Your task to perform on an android device: Open Google Chrome and click the shortcut for Amazon.com Image 0: 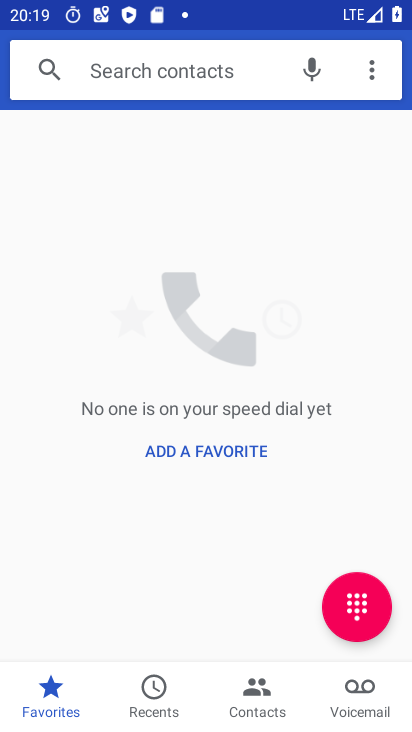
Step 0: press home button
Your task to perform on an android device: Open Google Chrome and click the shortcut for Amazon.com Image 1: 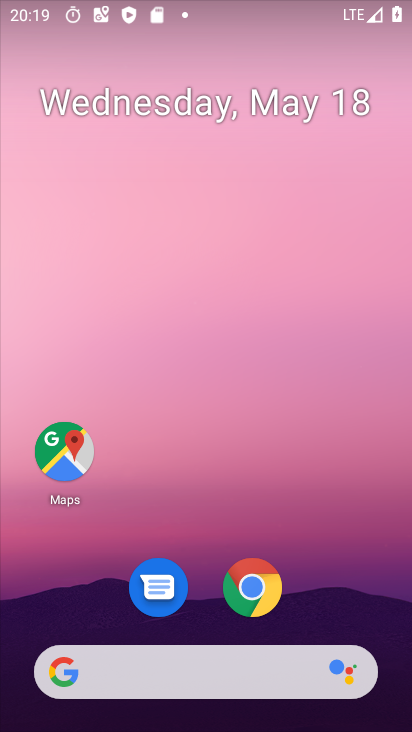
Step 1: click (258, 585)
Your task to perform on an android device: Open Google Chrome and click the shortcut for Amazon.com Image 2: 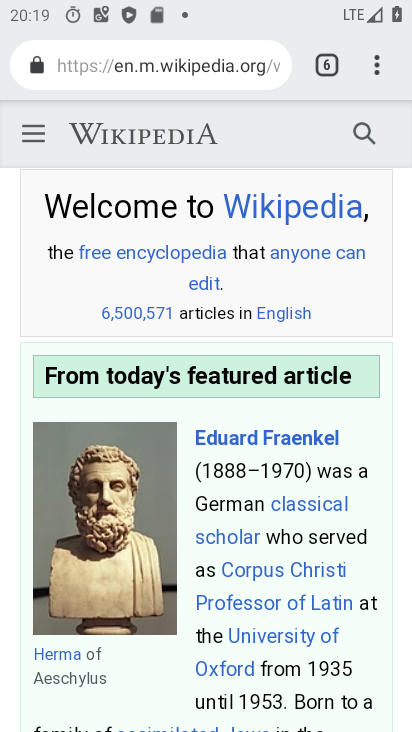
Step 2: click (318, 63)
Your task to perform on an android device: Open Google Chrome and click the shortcut for Amazon.com Image 3: 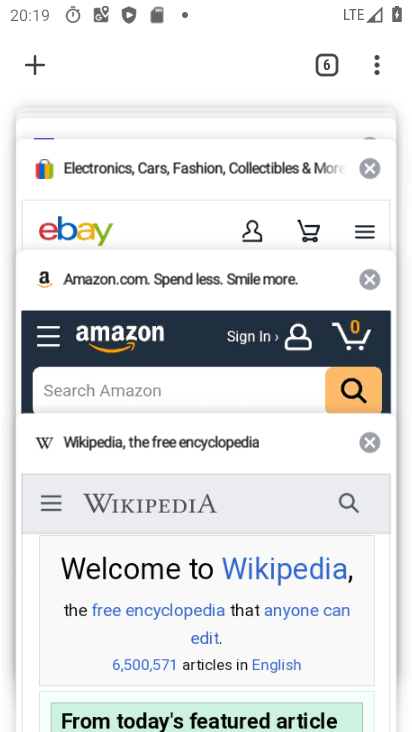
Step 3: click (232, 331)
Your task to perform on an android device: Open Google Chrome and click the shortcut for Amazon.com Image 4: 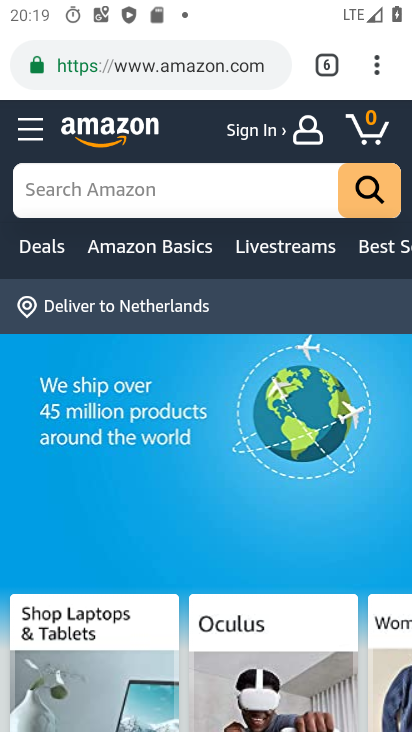
Step 4: task complete